Your task to perform on an android device: turn off location Image 0: 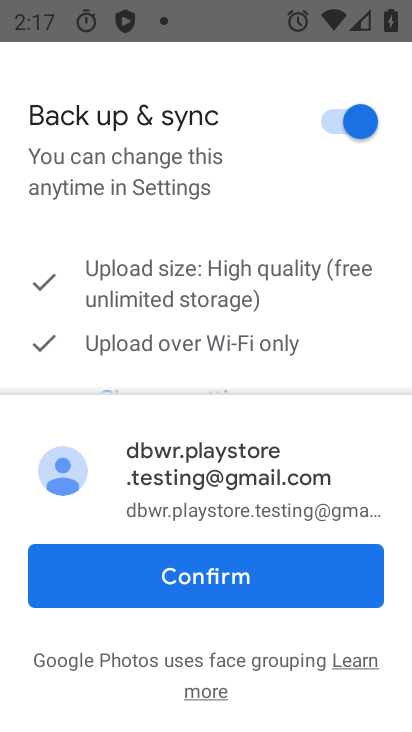
Step 0: drag from (202, 584) to (198, 215)
Your task to perform on an android device: turn off location Image 1: 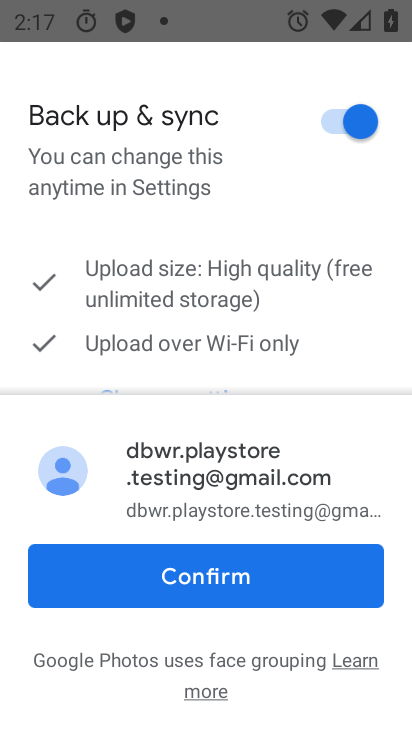
Step 1: press home button
Your task to perform on an android device: turn off location Image 2: 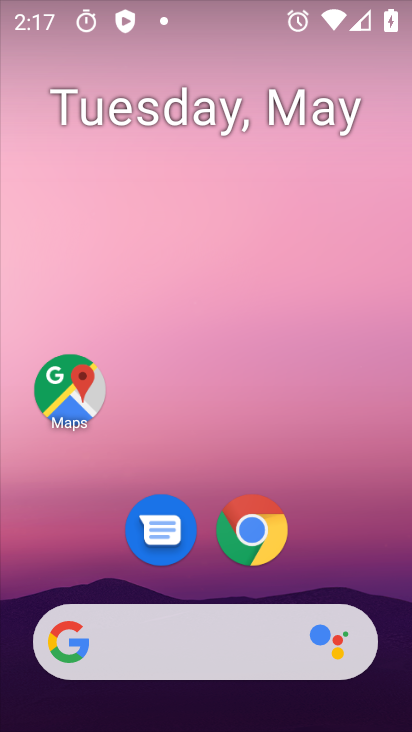
Step 2: drag from (230, 577) to (15, 179)
Your task to perform on an android device: turn off location Image 3: 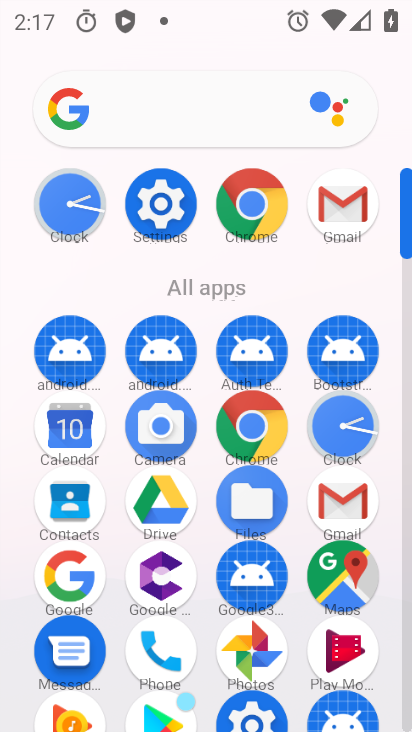
Step 3: click (161, 218)
Your task to perform on an android device: turn off location Image 4: 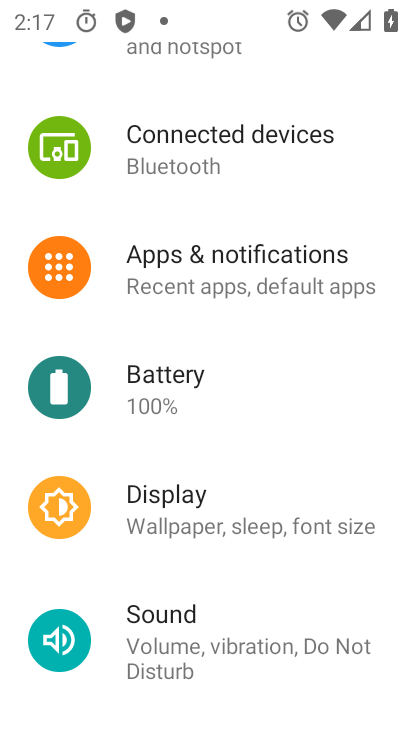
Step 4: drag from (189, 531) to (126, 73)
Your task to perform on an android device: turn off location Image 5: 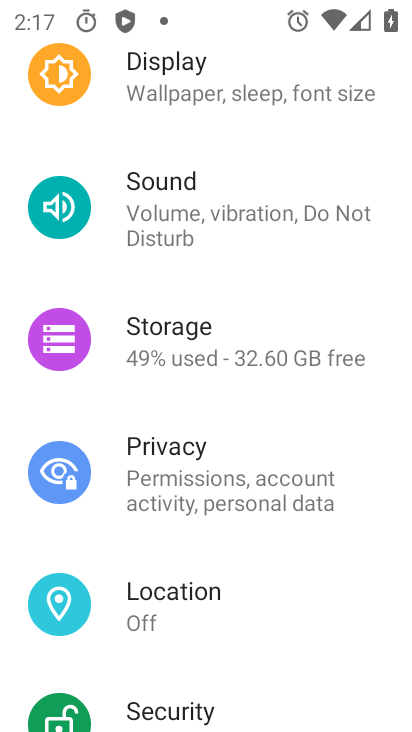
Step 5: click (204, 599)
Your task to perform on an android device: turn off location Image 6: 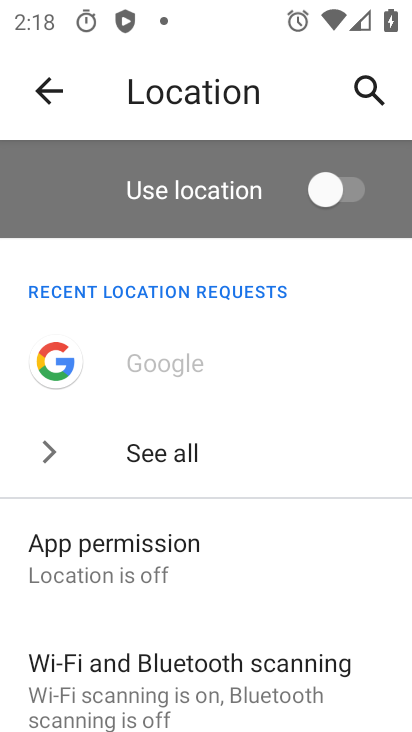
Step 6: task complete